Your task to perform on an android device: toggle wifi Image 0: 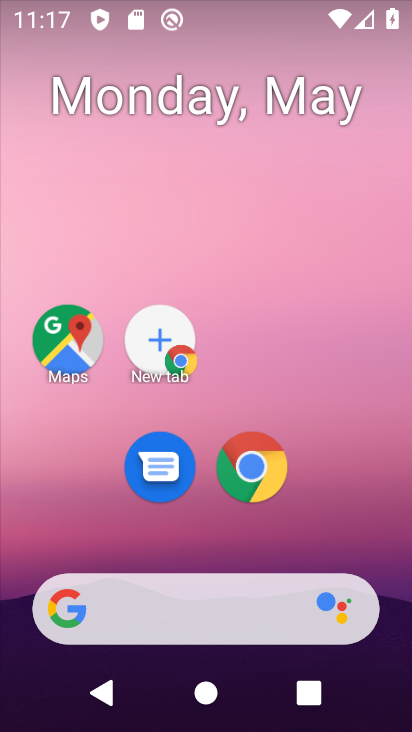
Step 0: drag from (389, 634) to (74, 98)
Your task to perform on an android device: toggle wifi Image 1: 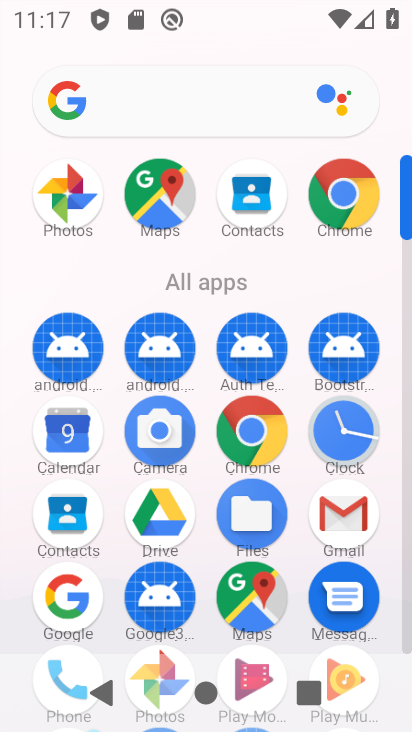
Step 1: drag from (302, 505) to (244, 151)
Your task to perform on an android device: toggle wifi Image 2: 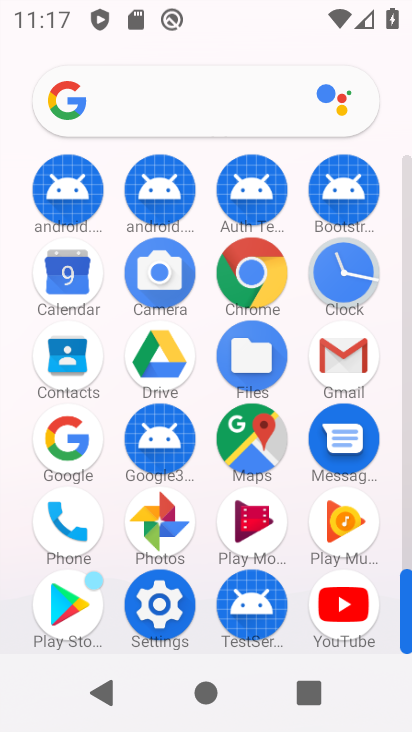
Step 2: drag from (296, 437) to (267, 172)
Your task to perform on an android device: toggle wifi Image 3: 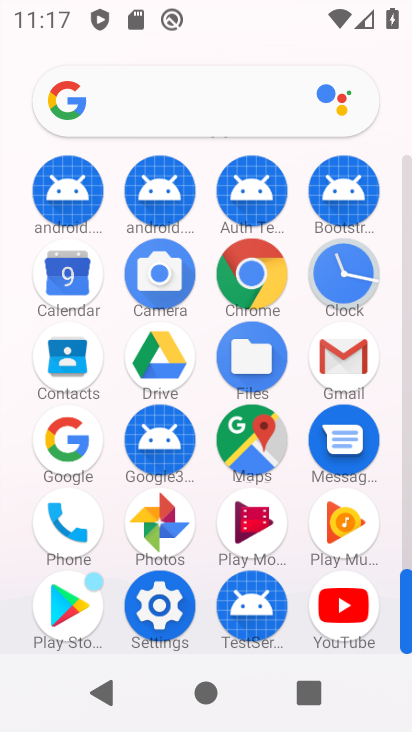
Step 3: drag from (296, 433) to (260, 179)
Your task to perform on an android device: toggle wifi Image 4: 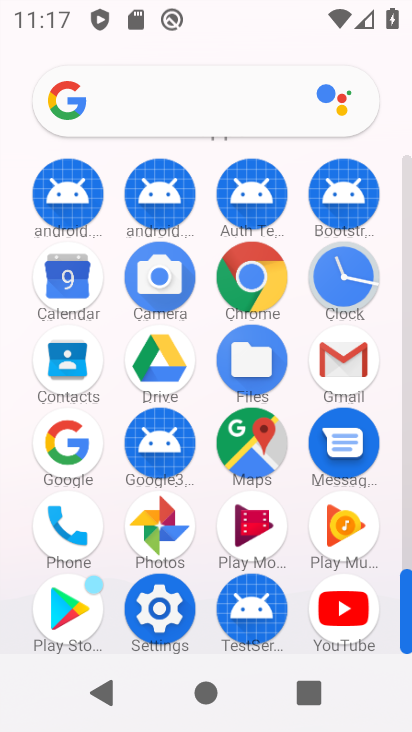
Step 4: click (157, 612)
Your task to perform on an android device: toggle wifi Image 5: 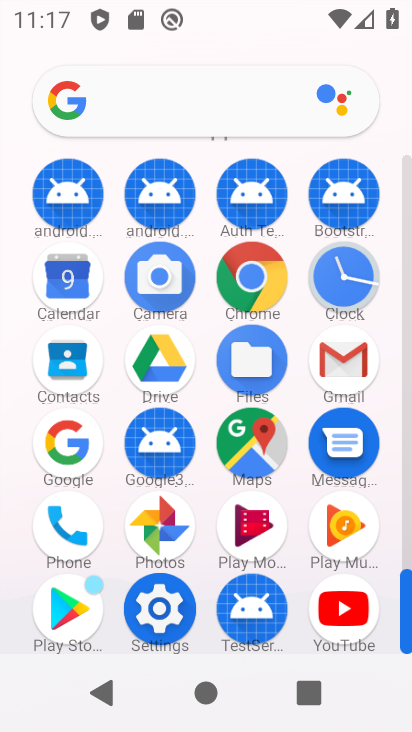
Step 5: click (157, 612)
Your task to perform on an android device: toggle wifi Image 6: 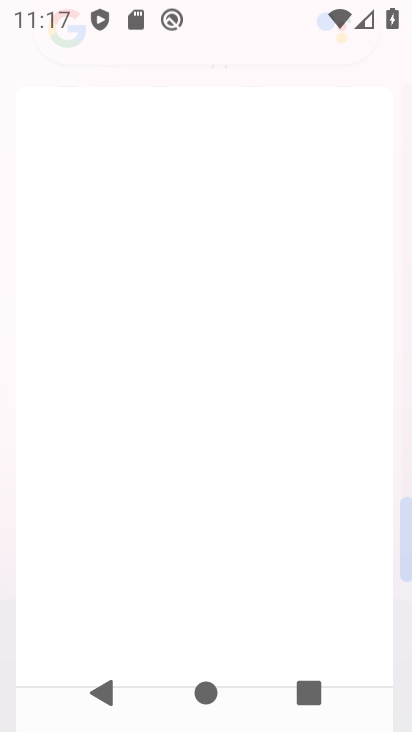
Step 6: click (157, 612)
Your task to perform on an android device: toggle wifi Image 7: 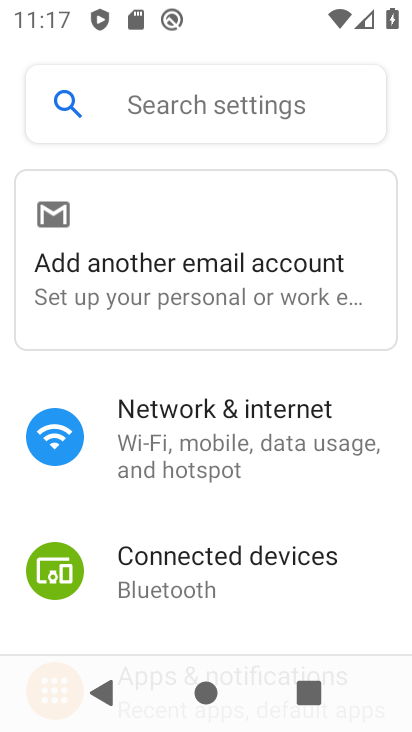
Step 7: click (180, 427)
Your task to perform on an android device: toggle wifi Image 8: 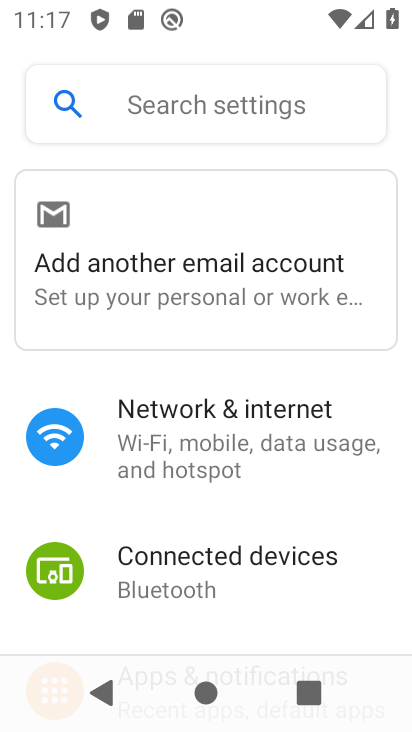
Step 8: click (200, 450)
Your task to perform on an android device: toggle wifi Image 9: 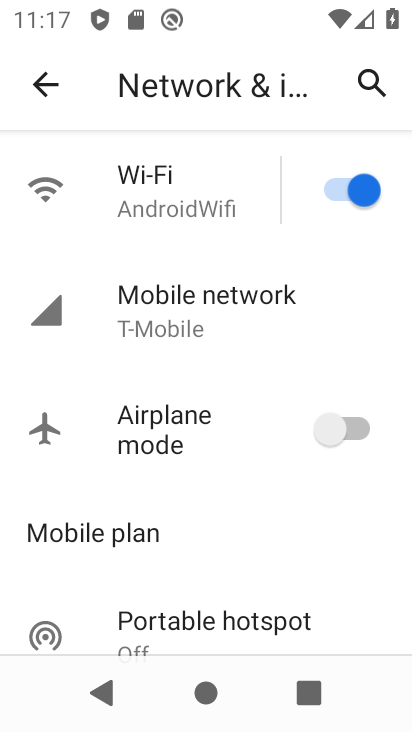
Step 9: click (348, 186)
Your task to perform on an android device: toggle wifi Image 10: 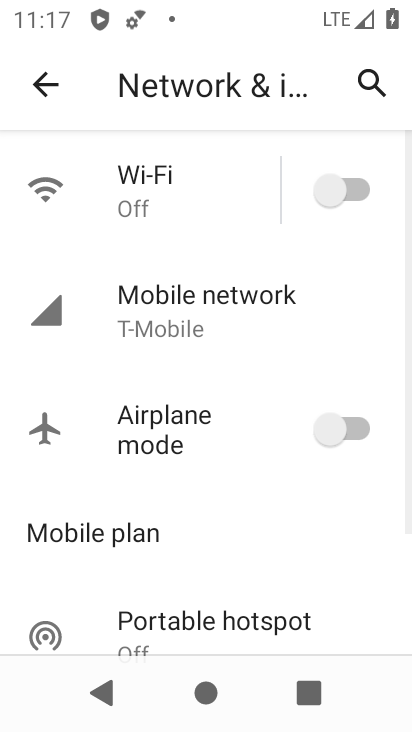
Step 10: task complete